Your task to perform on an android device: Open calendar and show me the second week of next month Image 0: 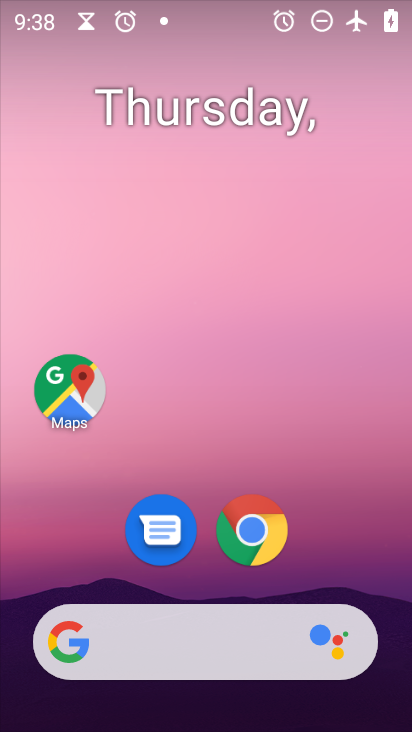
Step 0: drag from (355, 529) to (245, 26)
Your task to perform on an android device: Open calendar and show me the second week of next month Image 1: 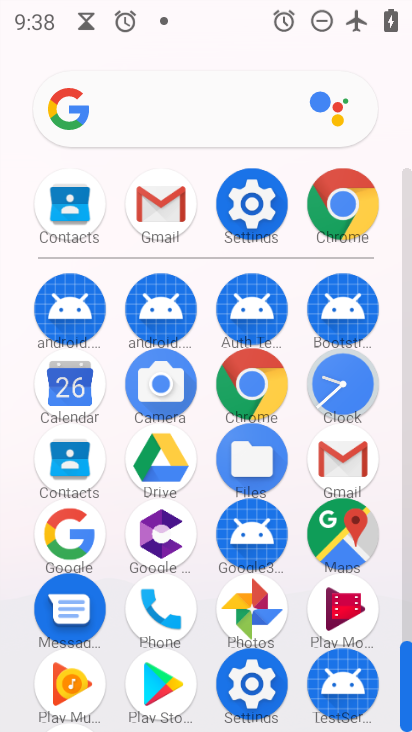
Step 1: drag from (0, 610) to (19, 262)
Your task to perform on an android device: Open calendar and show me the second week of next month Image 2: 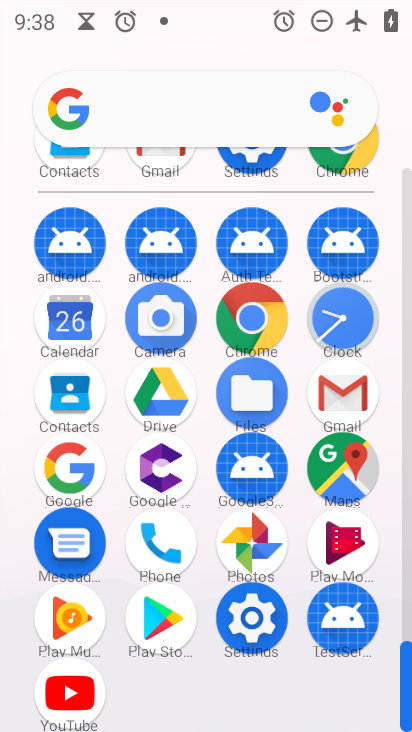
Step 2: click (65, 312)
Your task to perform on an android device: Open calendar and show me the second week of next month Image 3: 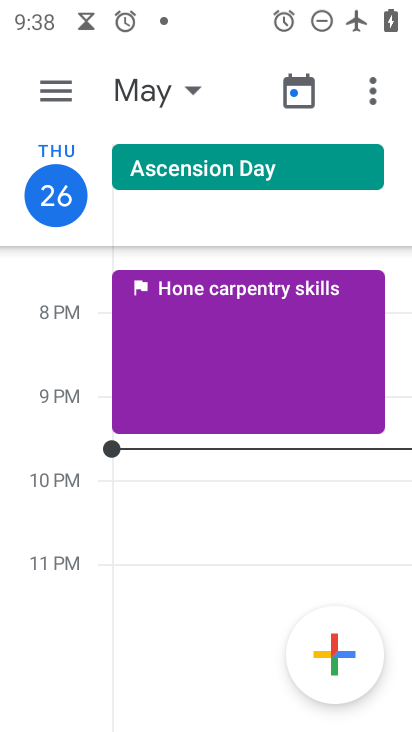
Step 3: click (126, 86)
Your task to perform on an android device: Open calendar and show me the second week of next month Image 4: 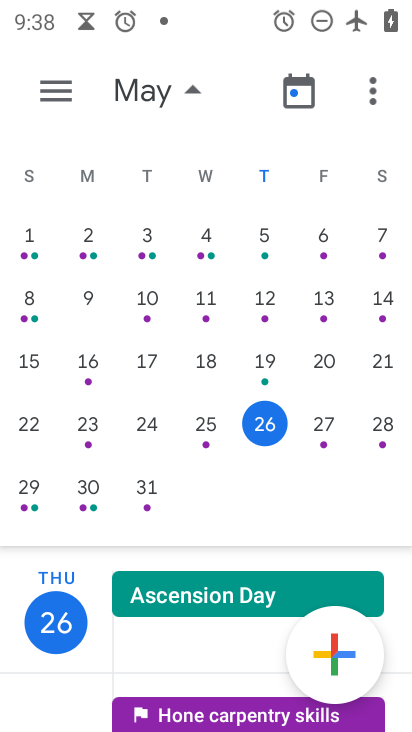
Step 4: drag from (393, 359) to (3, 368)
Your task to perform on an android device: Open calendar and show me the second week of next month Image 5: 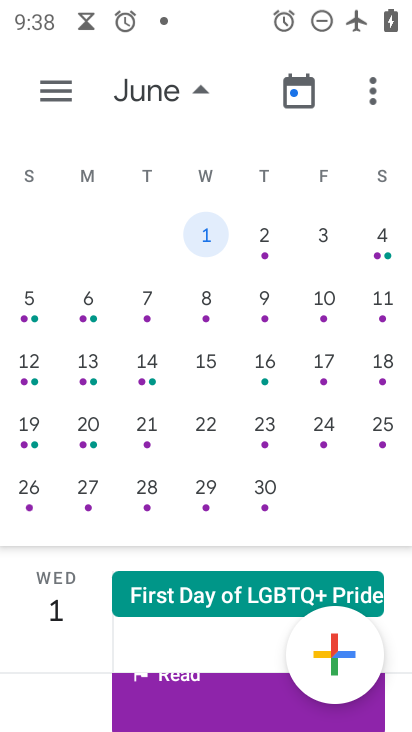
Step 5: click (23, 298)
Your task to perform on an android device: Open calendar and show me the second week of next month Image 6: 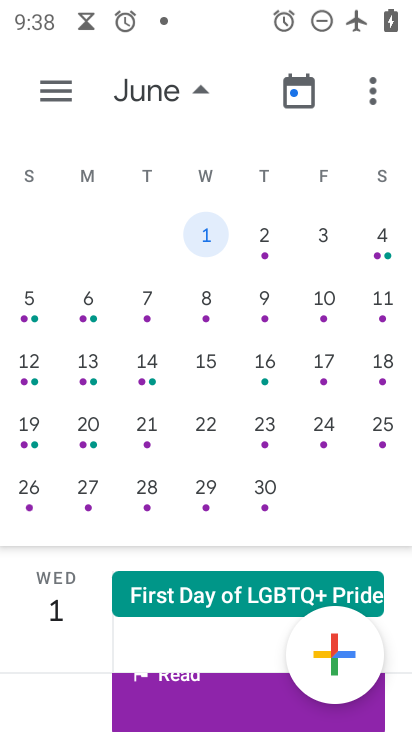
Step 6: click (31, 300)
Your task to perform on an android device: Open calendar and show me the second week of next month Image 7: 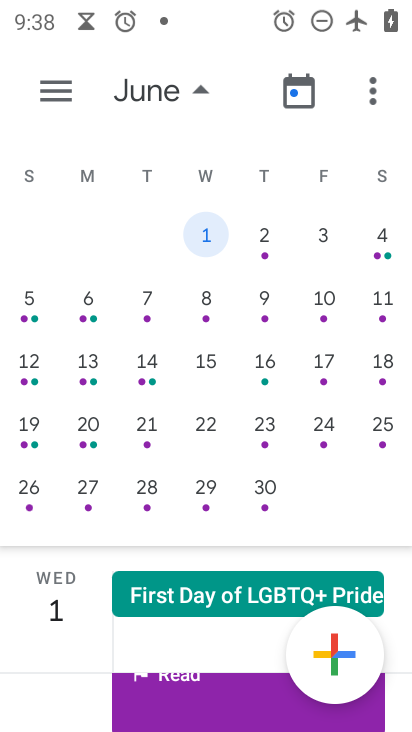
Step 7: click (31, 300)
Your task to perform on an android device: Open calendar and show me the second week of next month Image 8: 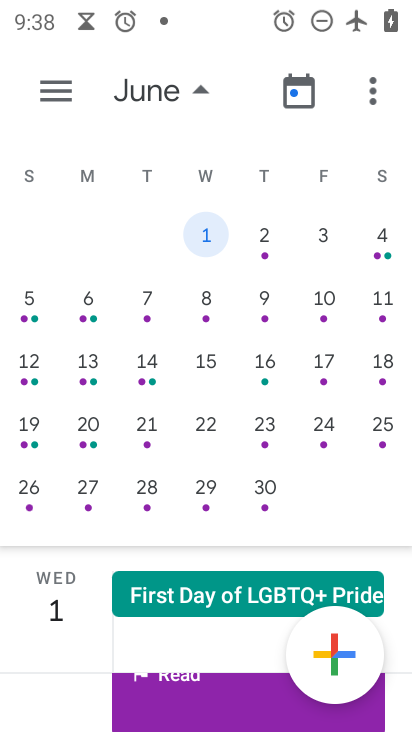
Step 8: click (39, 302)
Your task to perform on an android device: Open calendar and show me the second week of next month Image 9: 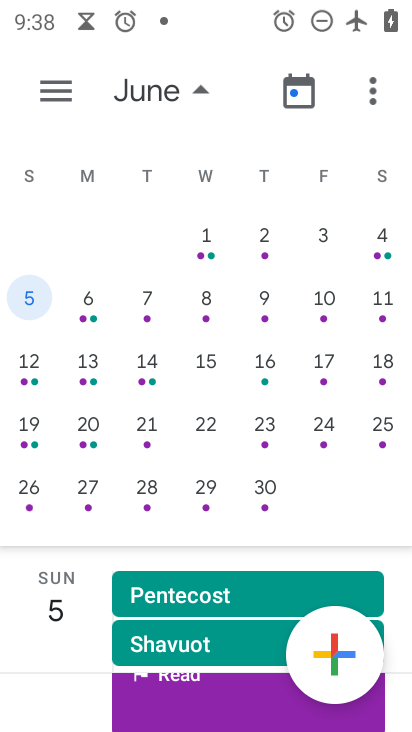
Step 9: click (53, 101)
Your task to perform on an android device: Open calendar and show me the second week of next month Image 10: 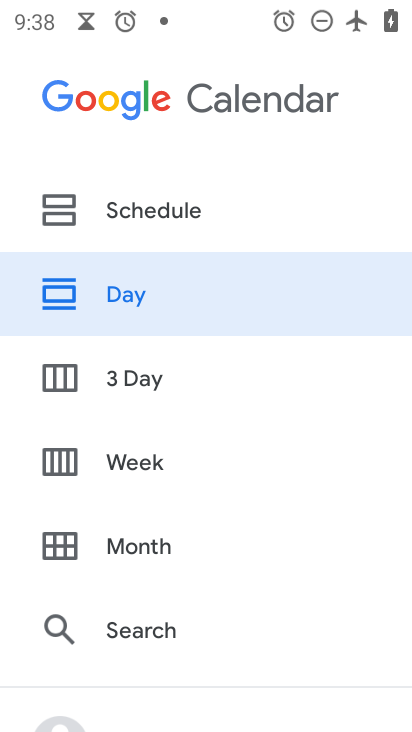
Step 10: click (140, 463)
Your task to perform on an android device: Open calendar and show me the second week of next month Image 11: 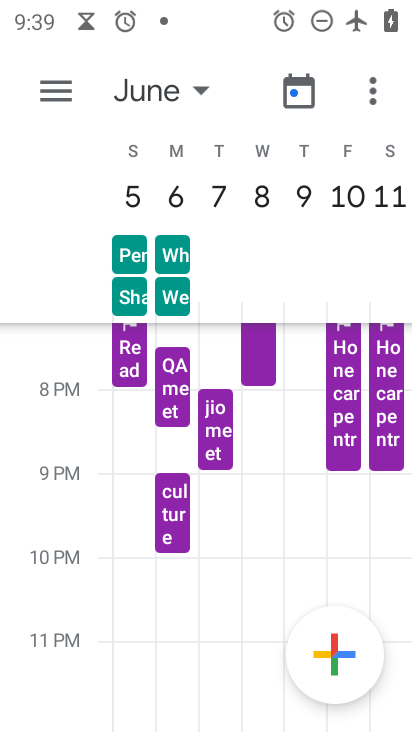
Step 11: task complete